Your task to perform on an android device: What's the weather going to be tomorrow? Image 0: 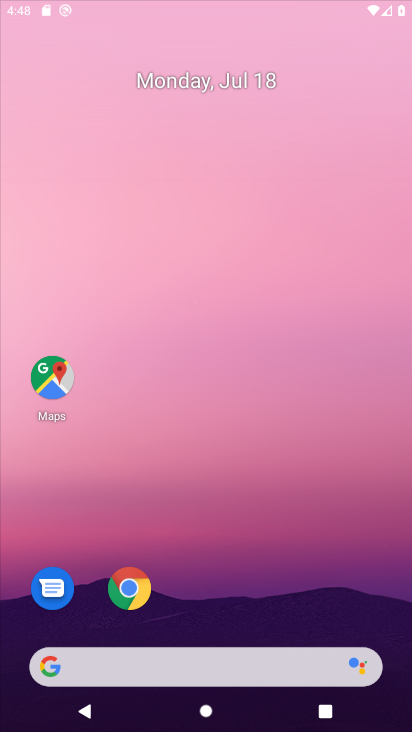
Step 0: press back button
Your task to perform on an android device: What's the weather going to be tomorrow? Image 1: 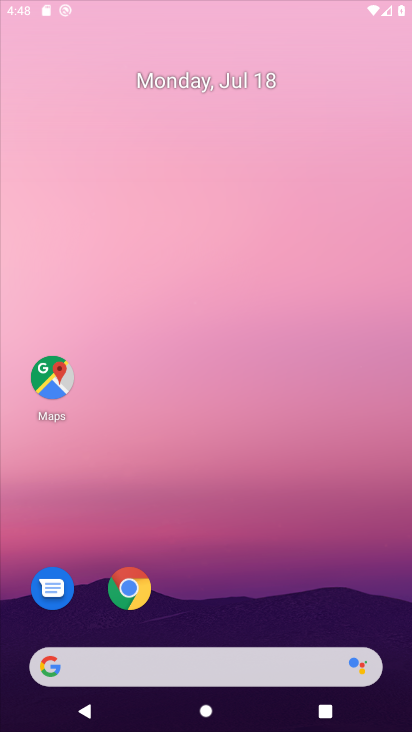
Step 1: click (218, 168)
Your task to perform on an android device: What's the weather going to be tomorrow? Image 2: 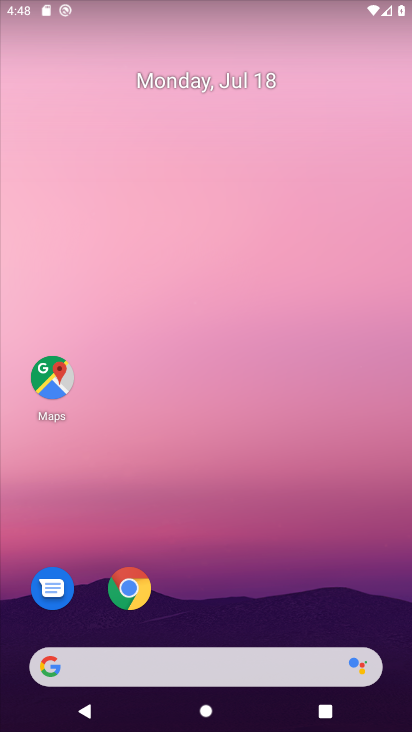
Step 2: drag from (266, 568) to (209, 241)
Your task to perform on an android device: What's the weather going to be tomorrow? Image 3: 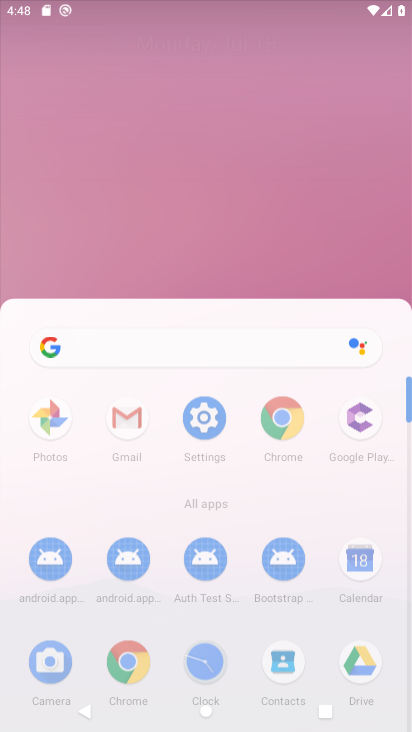
Step 3: drag from (260, 587) to (224, 259)
Your task to perform on an android device: What's the weather going to be tomorrow? Image 4: 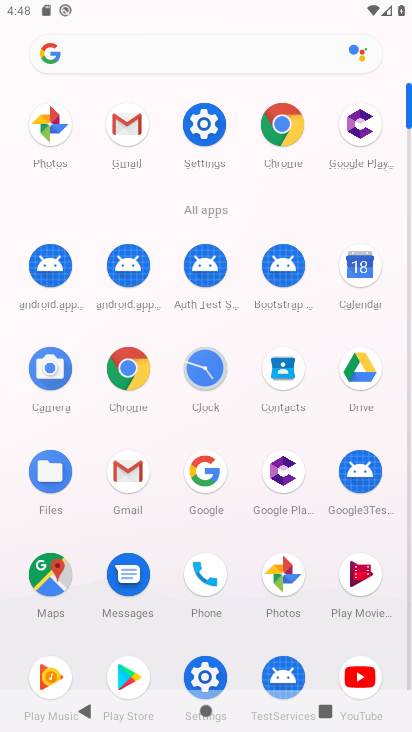
Step 4: click (288, 122)
Your task to perform on an android device: What's the weather going to be tomorrow? Image 5: 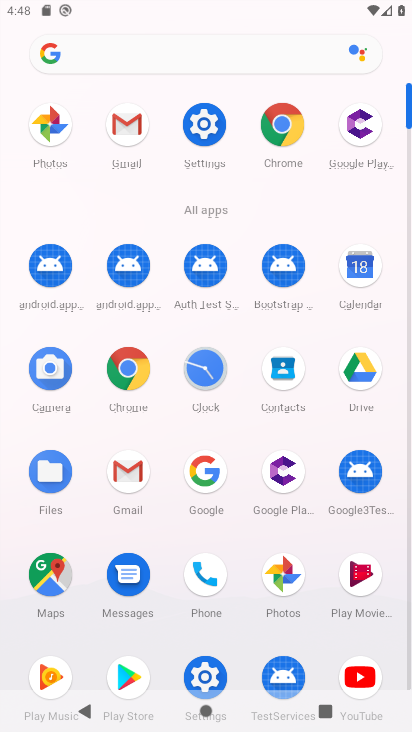
Step 5: click (288, 122)
Your task to perform on an android device: What's the weather going to be tomorrow? Image 6: 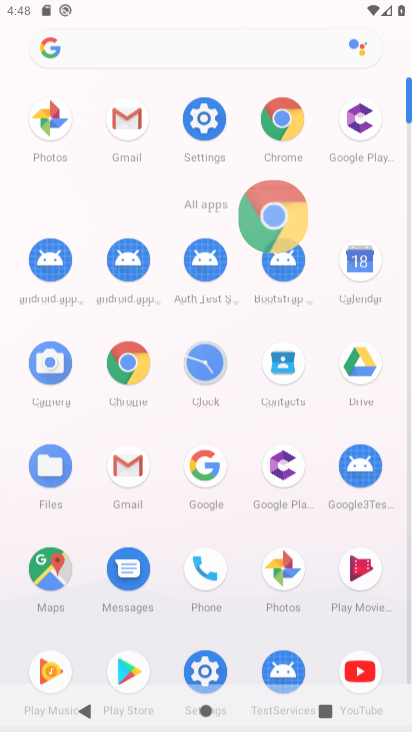
Step 6: click (284, 126)
Your task to perform on an android device: What's the weather going to be tomorrow? Image 7: 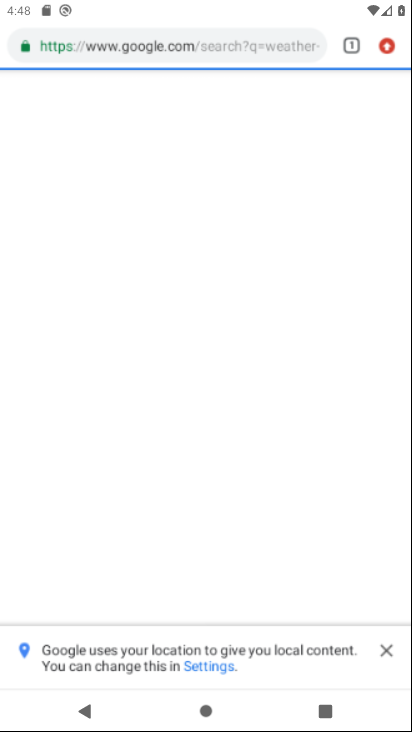
Step 7: click (278, 116)
Your task to perform on an android device: What's the weather going to be tomorrow? Image 8: 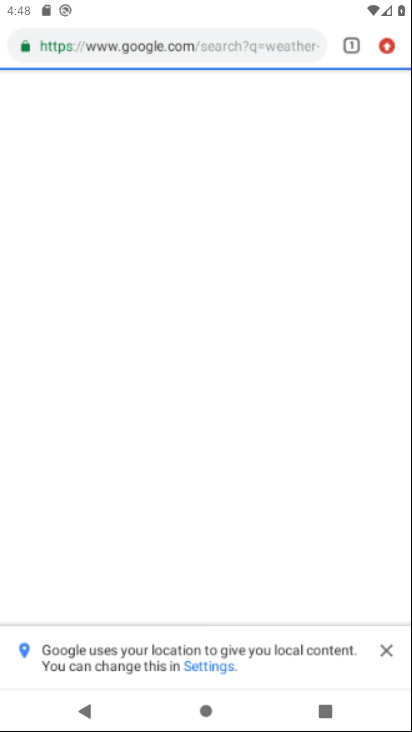
Step 8: click (275, 114)
Your task to perform on an android device: What's the weather going to be tomorrow? Image 9: 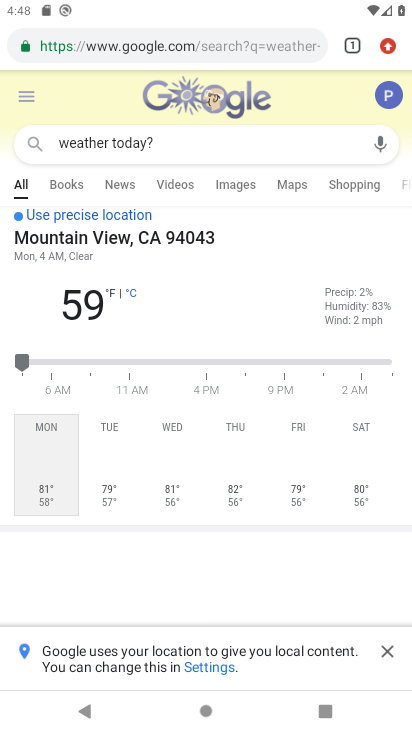
Step 9: drag from (387, 42) to (338, 500)
Your task to perform on an android device: What's the weather going to be tomorrow? Image 10: 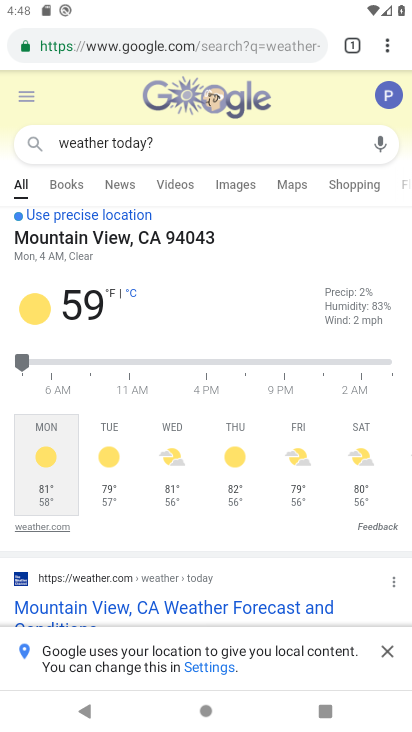
Step 10: click (223, 144)
Your task to perform on an android device: What's the weather going to be tomorrow? Image 11: 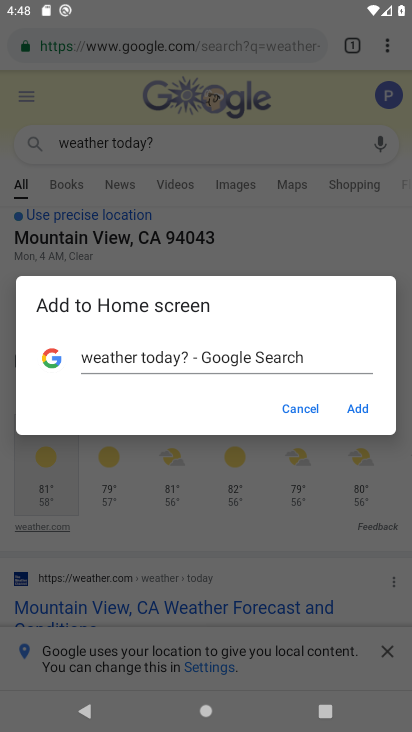
Step 11: click (306, 406)
Your task to perform on an android device: What's the weather going to be tomorrow? Image 12: 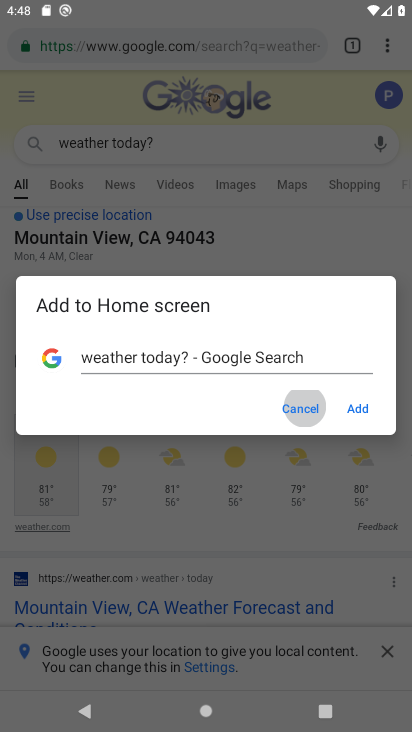
Step 12: click (306, 406)
Your task to perform on an android device: What's the weather going to be tomorrow? Image 13: 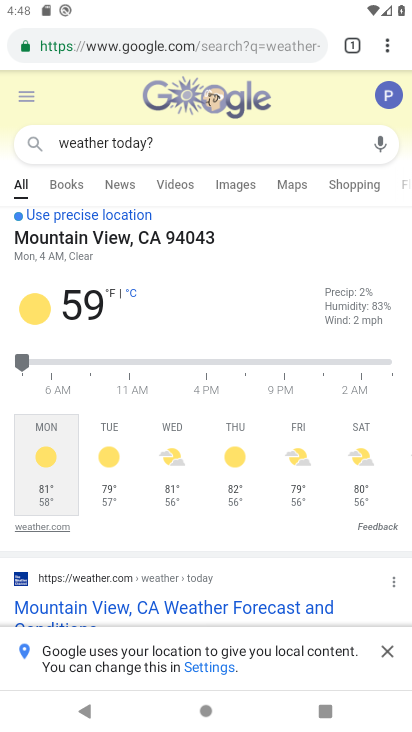
Step 13: drag from (388, 40) to (205, 140)
Your task to perform on an android device: What's the weather going to be tomorrow? Image 14: 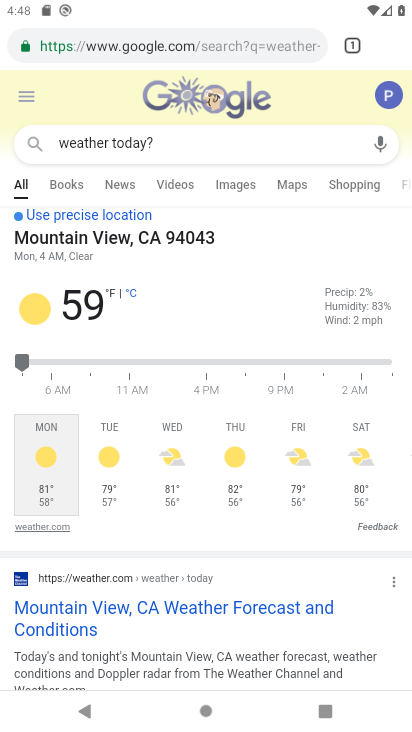
Step 14: drag from (139, 151) to (142, 271)
Your task to perform on an android device: What's the weather going to be tomorrow? Image 15: 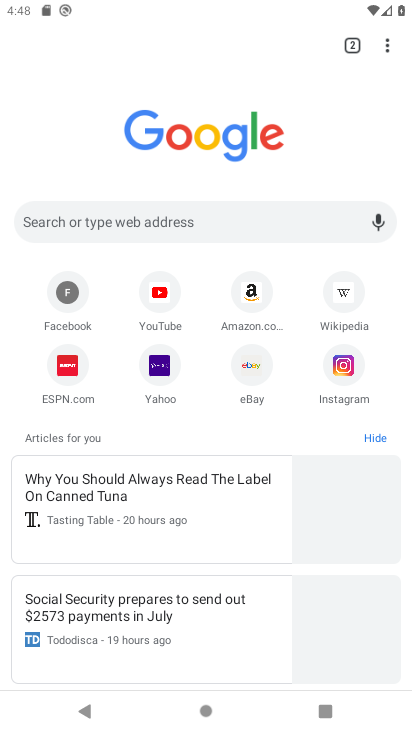
Step 15: click (142, 286)
Your task to perform on an android device: What's the weather going to be tomorrow? Image 16: 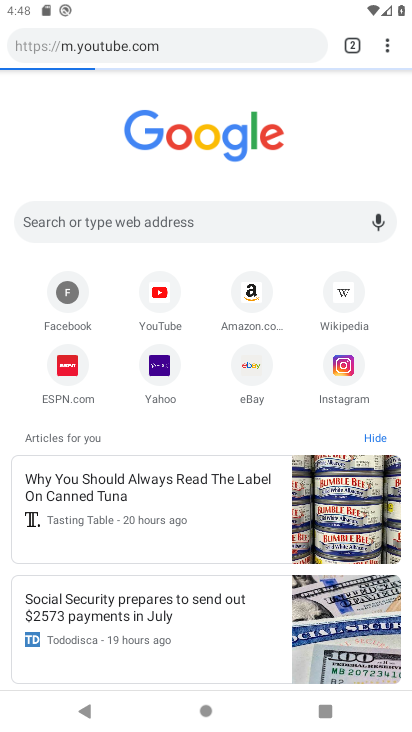
Step 16: task complete